Your task to perform on an android device: Open Youtube and go to "Your channel" Image 0: 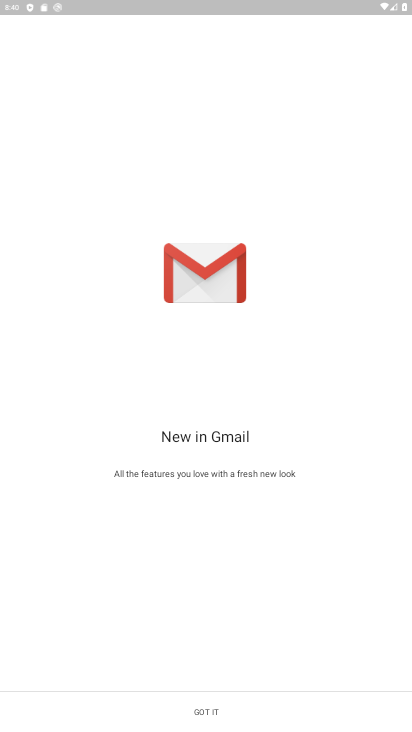
Step 0: press home button
Your task to perform on an android device: Open Youtube and go to "Your channel" Image 1: 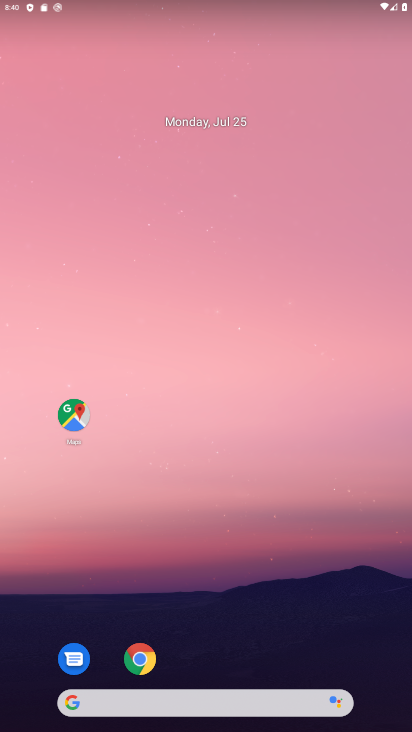
Step 1: drag from (243, 653) to (242, 220)
Your task to perform on an android device: Open Youtube and go to "Your channel" Image 2: 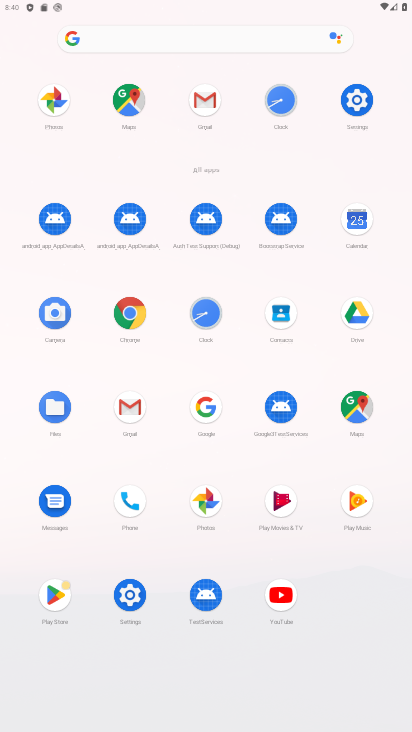
Step 2: click (284, 606)
Your task to perform on an android device: Open Youtube and go to "Your channel" Image 3: 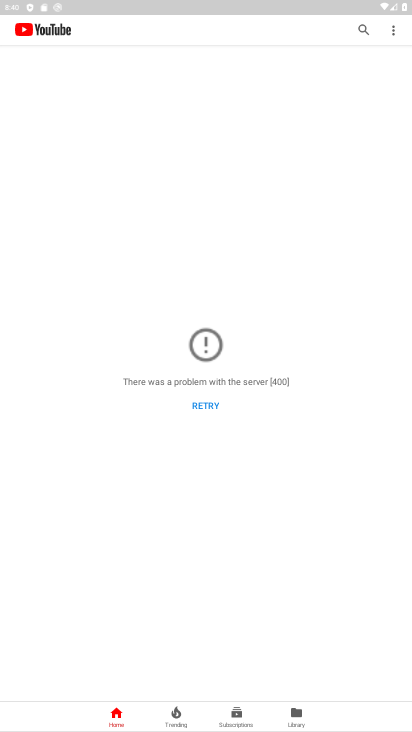
Step 3: click (399, 28)
Your task to perform on an android device: Open Youtube and go to "Your channel" Image 4: 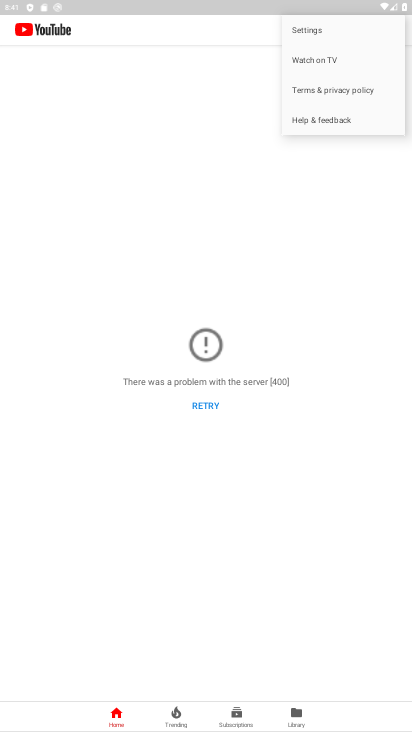
Step 4: click (329, 38)
Your task to perform on an android device: Open Youtube and go to "Your channel" Image 5: 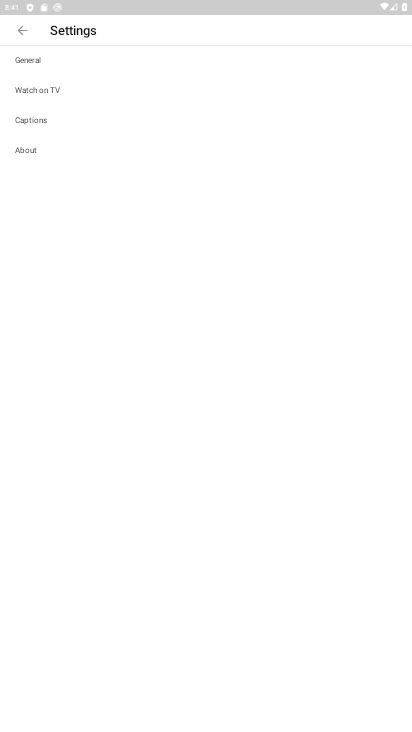
Step 5: task complete